Your task to perform on an android device: Go to eBay Image 0: 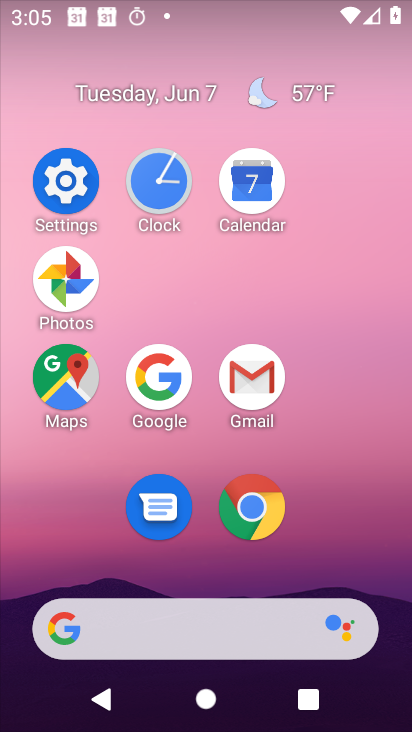
Step 0: click (240, 497)
Your task to perform on an android device: Go to eBay Image 1: 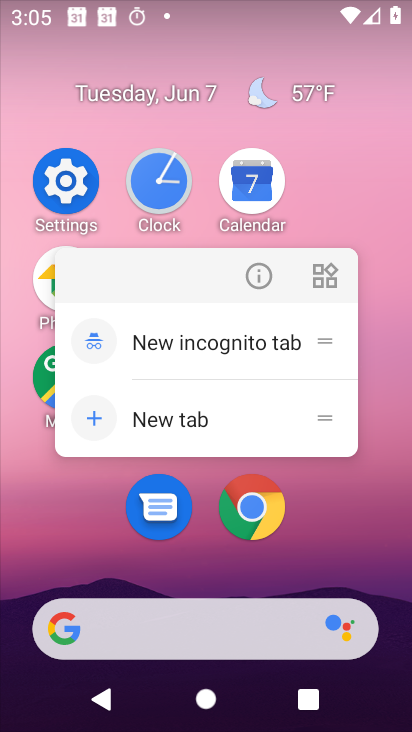
Step 1: click (246, 505)
Your task to perform on an android device: Go to eBay Image 2: 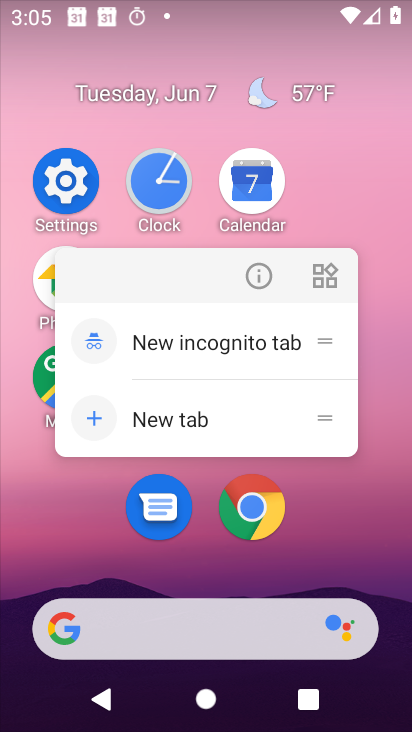
Step 2: click (262, 511)
Your task to perform on an android device: Go to eBay Image 3: 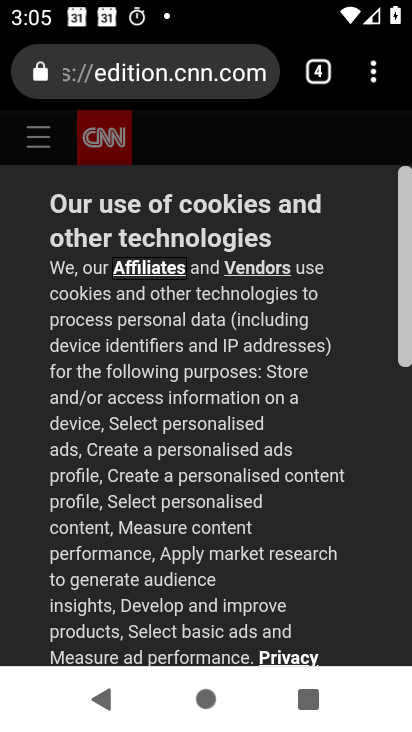
Step 3: click (330, 84)
Your task to perform on an android device: Go to eBay Image 4: 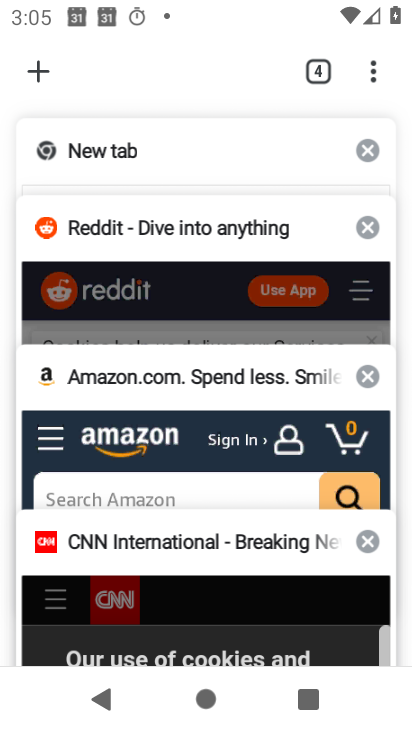
Step 4: click (55, 71)
Your task to perform on an android device: Go to eBay Image 5: 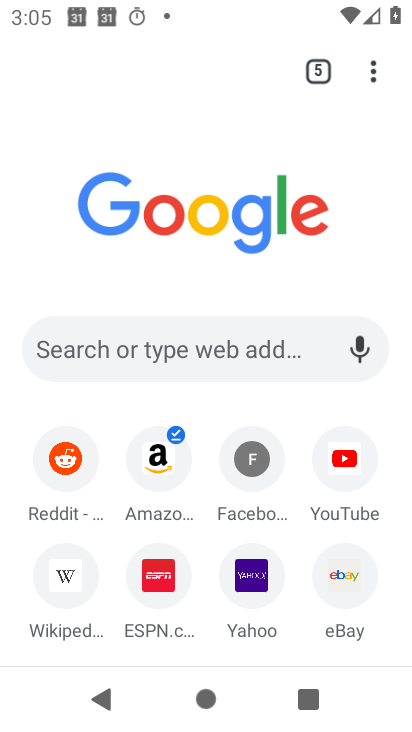
Step 5: click (199, 344)
Your task to perform on an android device: Go to eBay Image 6: 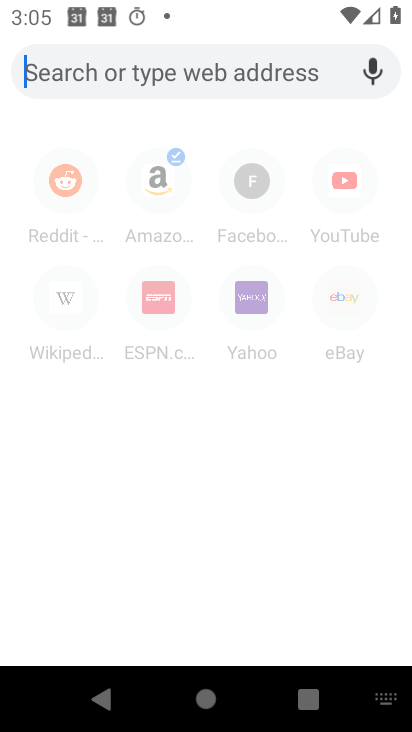
Step 6: click (360, 291)
Your task to perform on an android device: Go to eBay Image 7: 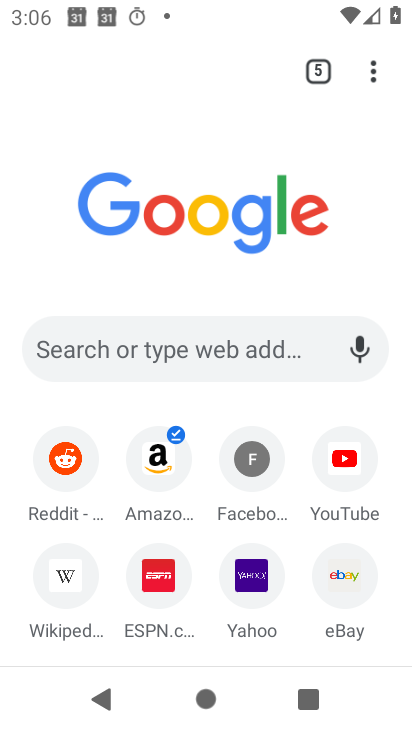
Step 7: click (330, 589)
Your task to perform on an android device: Go to eBay Image 8: 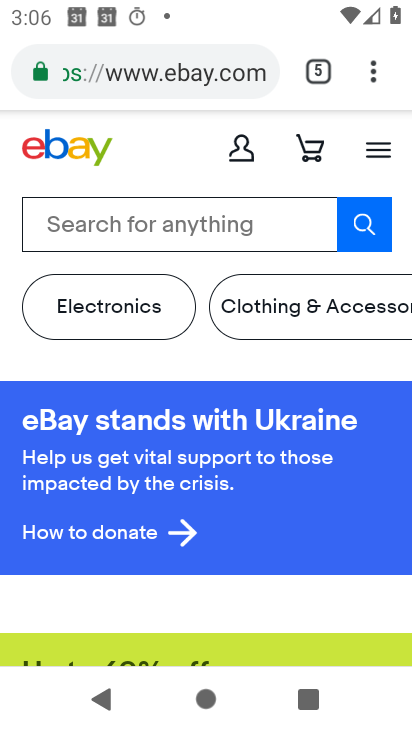
Step 8: task complete